Your task to perform on an android device: Go to Wikipedia Image 0: 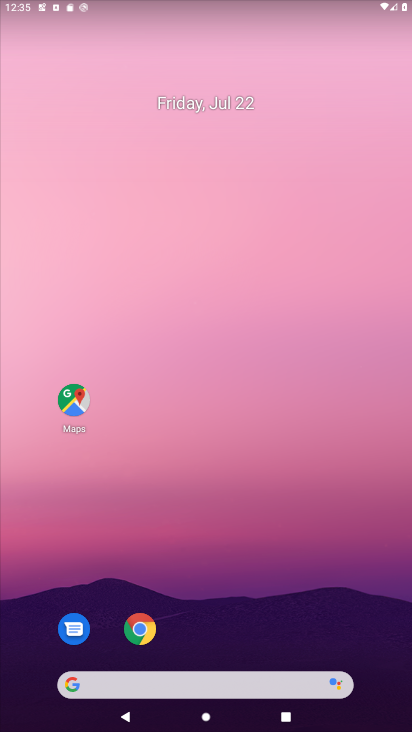
Step 0: drag from (340, 545) to (295, 124)
Your task to perform on an android device: Go to Wikipedia Image 1: 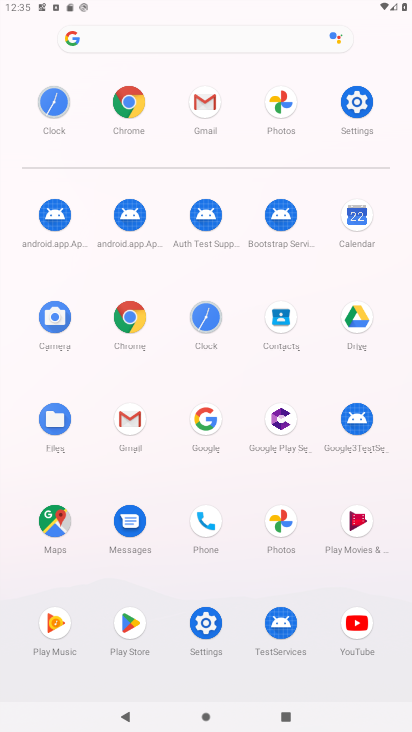
Step 1: click (134, 323)
Your task to perform on an android device: Go to Wikipedia Image 2: 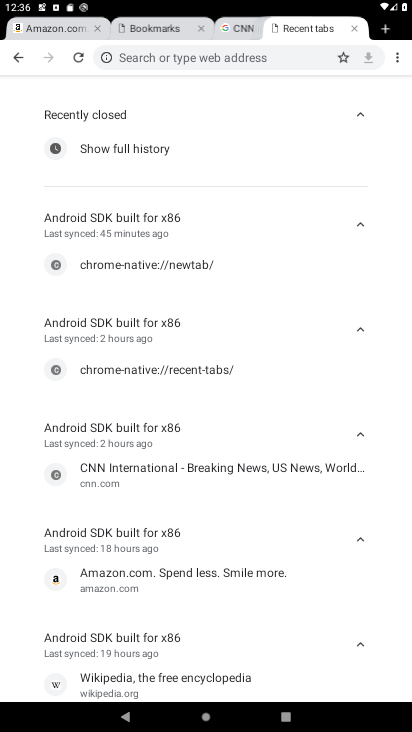
Step 2: click (378, 31)
Your task to perform on an android device: Go to Wikipedia Image 3: 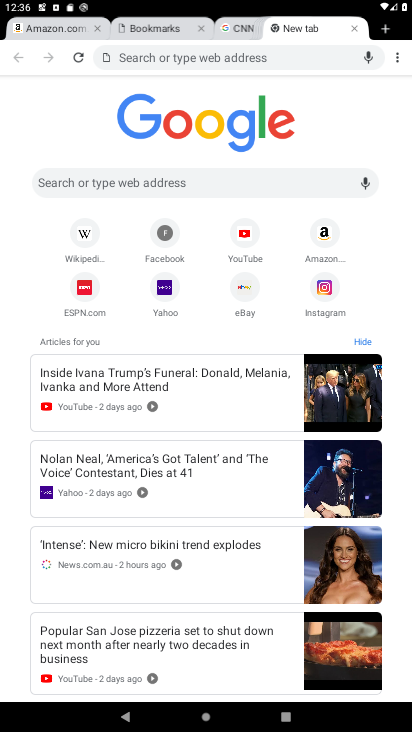
Step 3: click (89, 233)
Your task to perform on an android device: Go to Wikipedia Image 4: 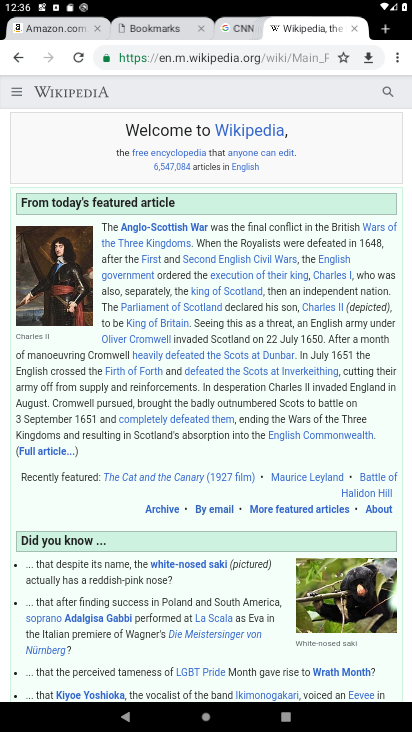
Step 4: task complete